Your task to perform on an android device: Show me recent news Image 0: 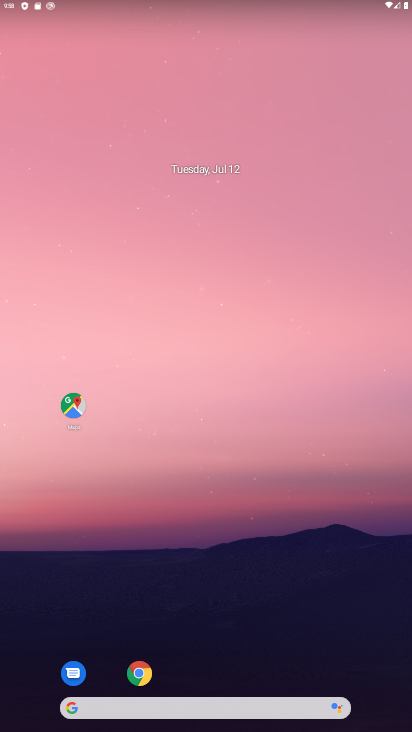
Step 0: drag from (278, 586) to (242, 0)
Your task to perform on an android device: Show me recent news Image 1: 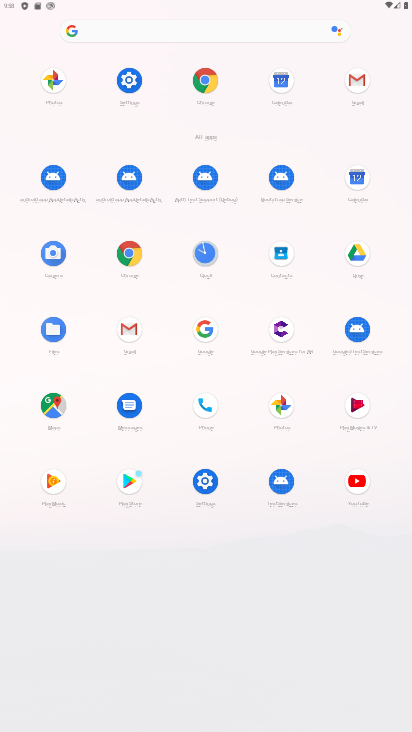
Step 1: click (202, 80)
Your task to perform on an android device: Show me recent news Image 2: 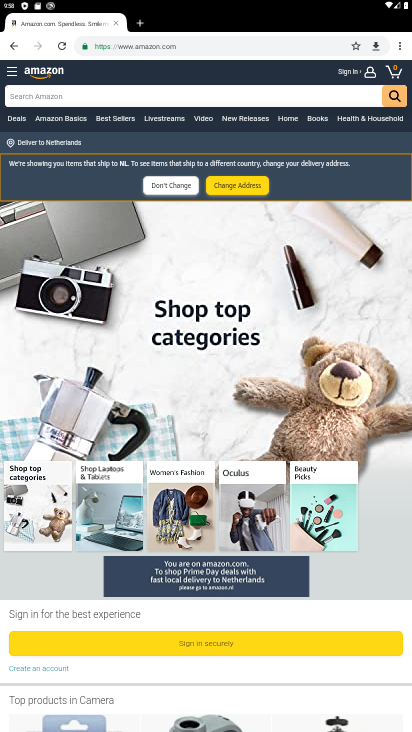
Step 2: click (204, 50)
Your task to perform on an android device: Show me recent news Image 3: 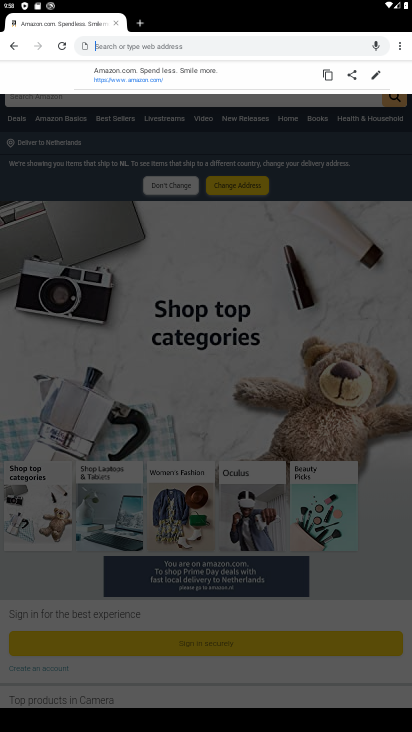
Step 3: type "news"
Your task to perform on an android device: Show me recent news Image 4: 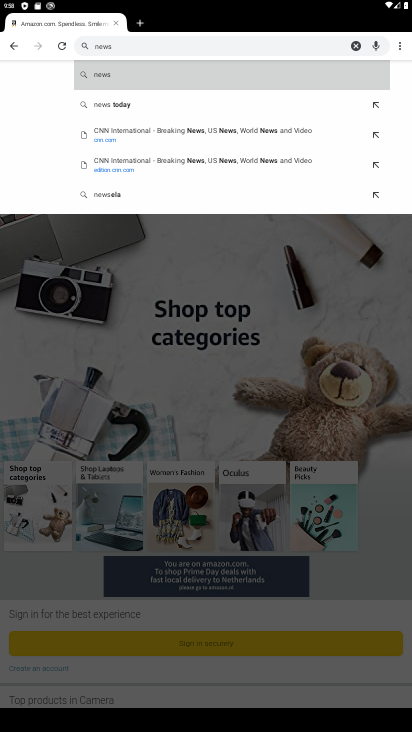
Step 4: click (114, 82)
Your task to perform on an android device: Show me recent news Image 5: 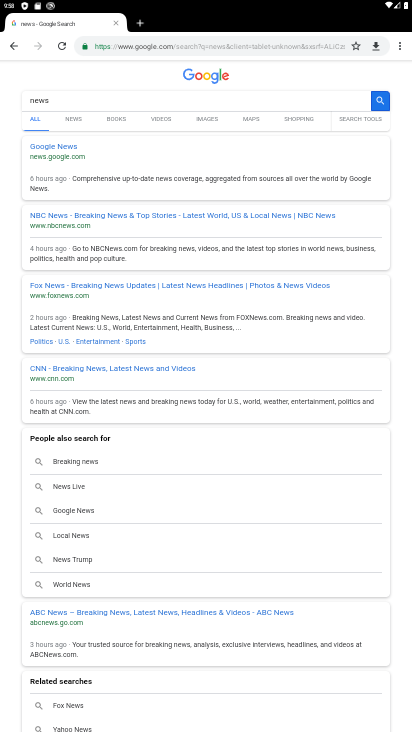
Step 5: click (58, 144)
Your task to perform on an android device: Show me recent news Image 6: 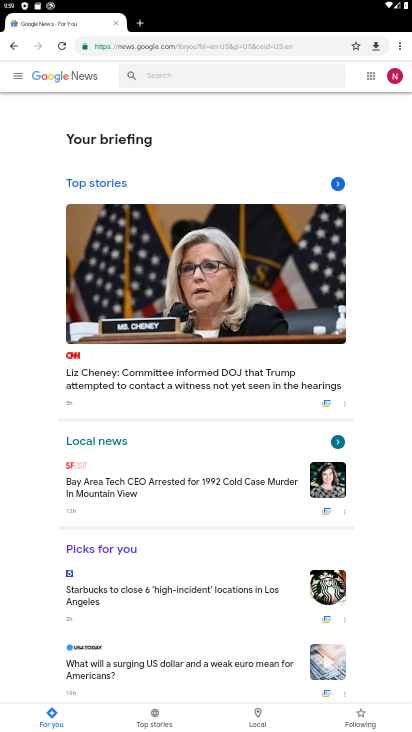
Step 6: task complete